Your task to perform on an android device: allow notifications from all sites in the chrome app Image 0: 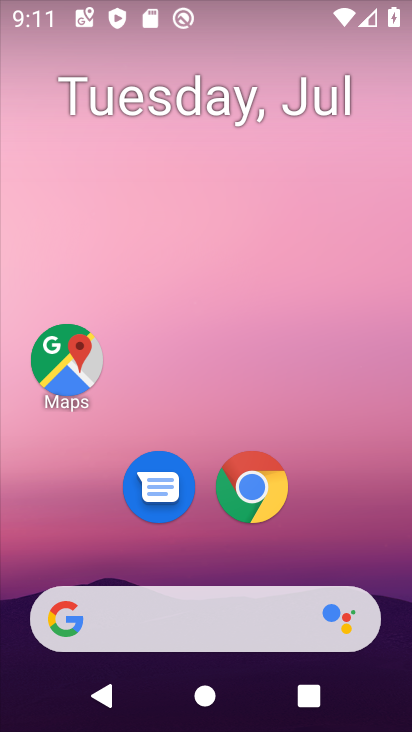
Step 0: click (257, 461)
Your task to perform on an android device: allow notifications from all sites in the chrome app Image 1: 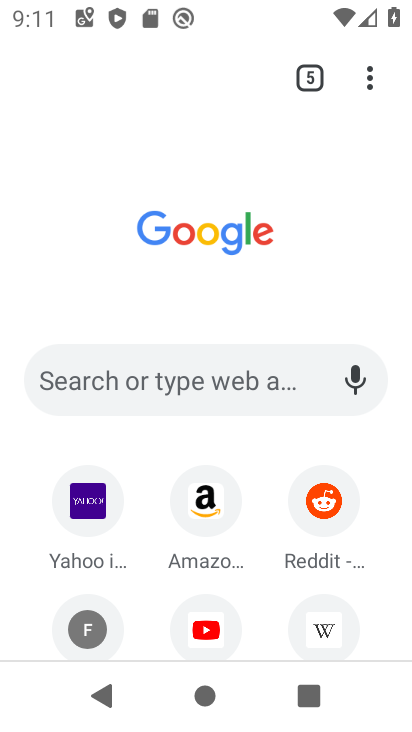
Step 1: drag from (384, 62) to (103, 549)
Your task to perform on an android device: allow notifications from all sites in the chrome app Image 2: 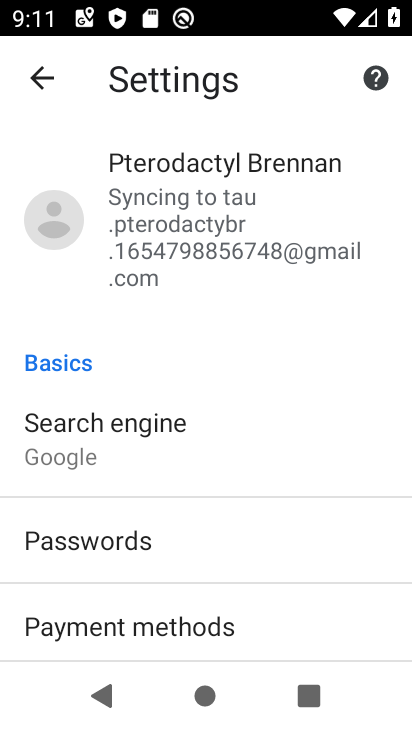
Step 2: drag from (170, 593) to (306, 39)
Your task to perform on an android device: allow notifications from all sites in the chrome app Image 3: 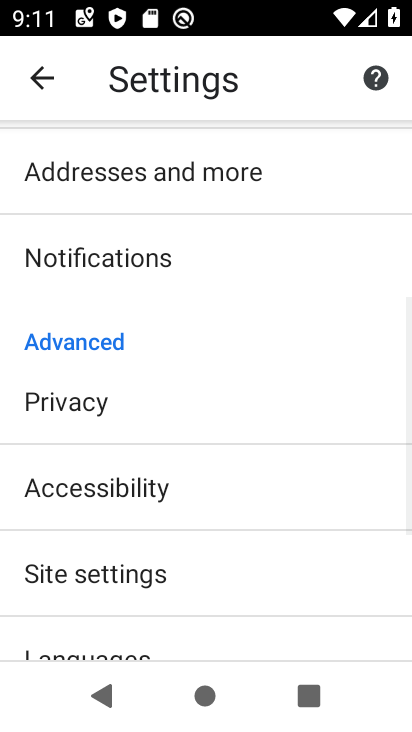
Step 3: drag from (147, 561) to (239, 113)
Your task to perform on an android device: allow notifications from all sites in the chrome app Image 4: 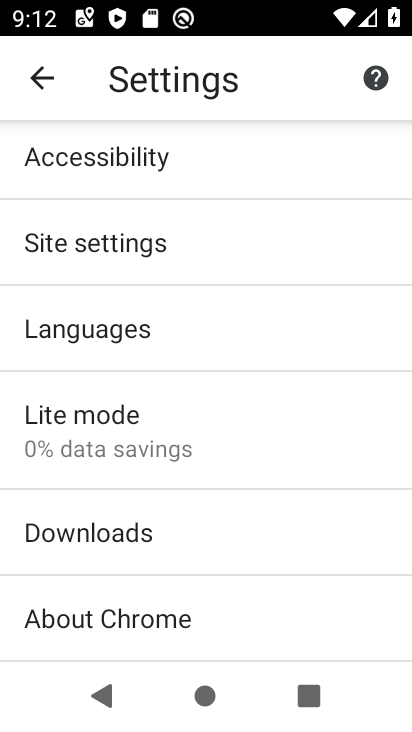
Step 4: drag from (126, 560) to (208, 114)
Your task to perform on an android device: allow notifications from all sites in the chrome app Image 5: 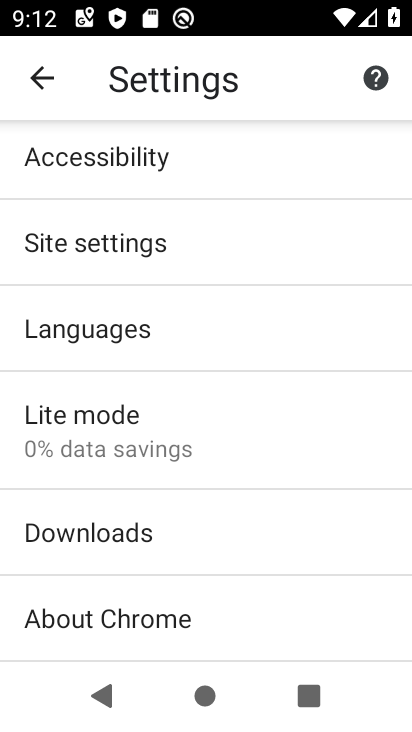
Step 5: drag from (153, 601) to (158, 111)
Your task to perform on an android device: allow notifications from all sites in the chrome app Image 6: 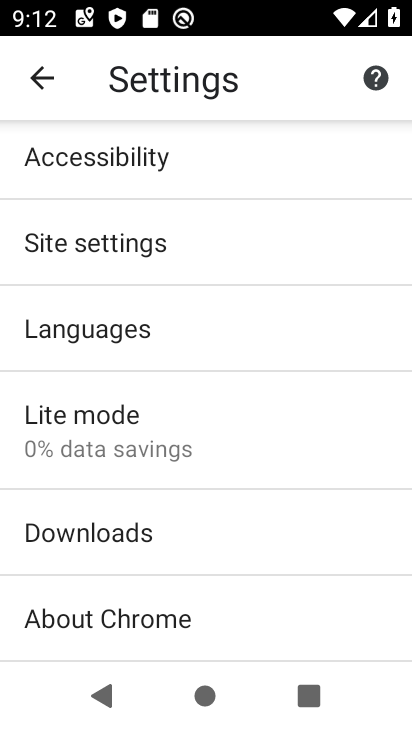
Step 6: click (141, 242)
Your task to perform on an android device: allow notifications from all sites in the chrome app Image 7: 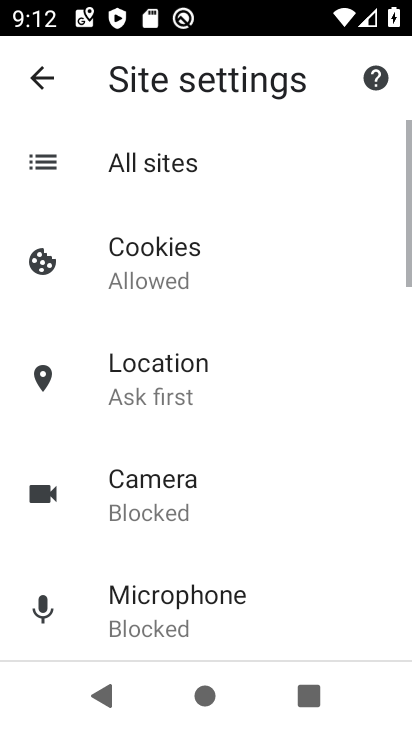
Step 7: drag from (172, 627) to (216, 170)
Your task to perform on an android device: allow notifications from all sites in the chrome app Image 8: 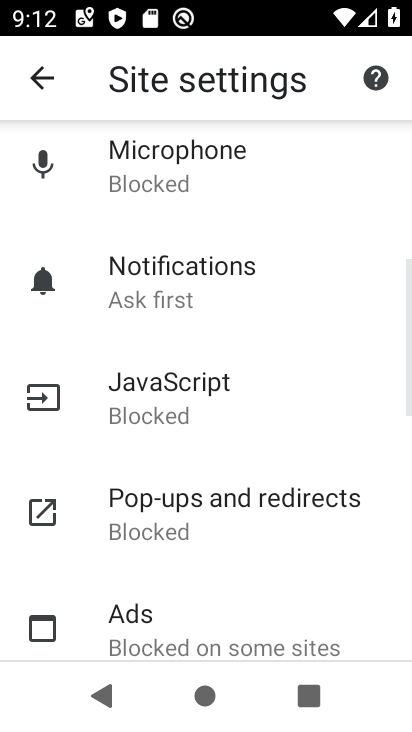
Step 8: click (142, 274)
Your task to perform on an android device: allow notifications from all sites in the chrome app Image 9: 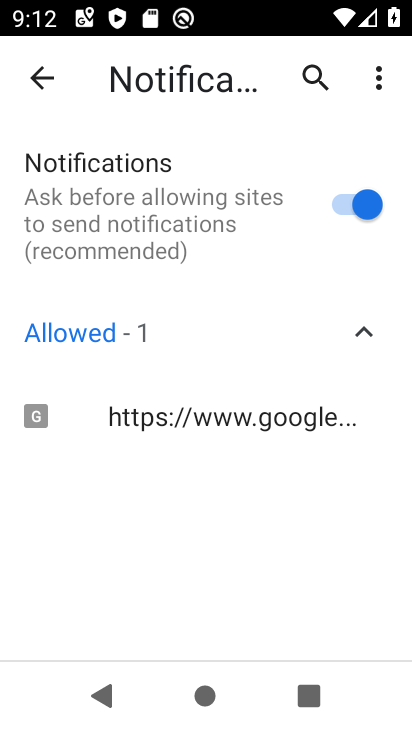
Step 9: task complete